Your task to perform on an android device: Clear the shopping cart on costco. Add razer nari to the cart on costco Image 0: 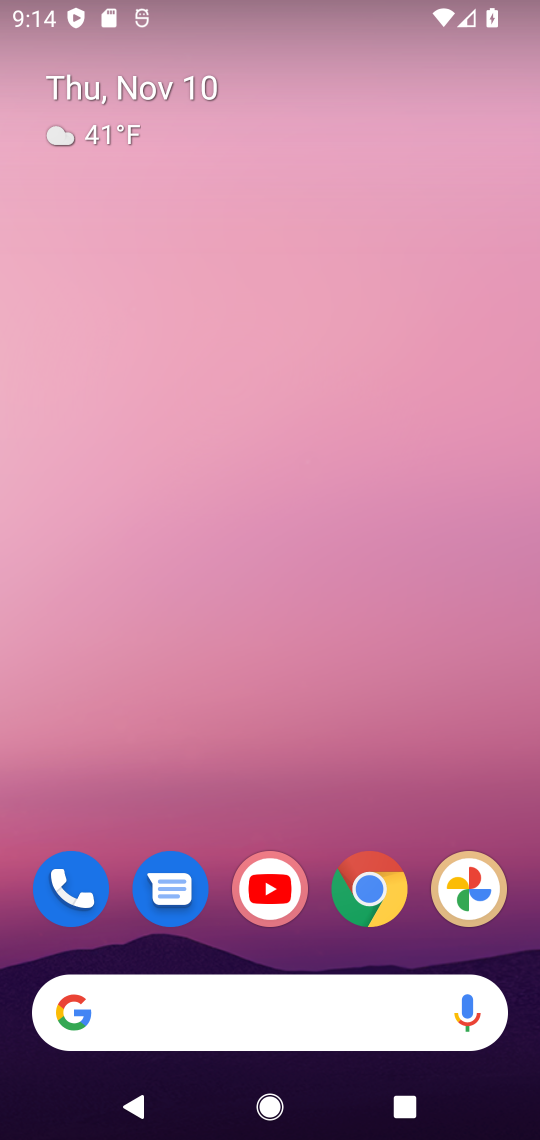
Step 0: click (370, 890)
Your task to perform on an android device: Clear the shopping cart on costco. Add razer nari to the cart on costco Image 1: 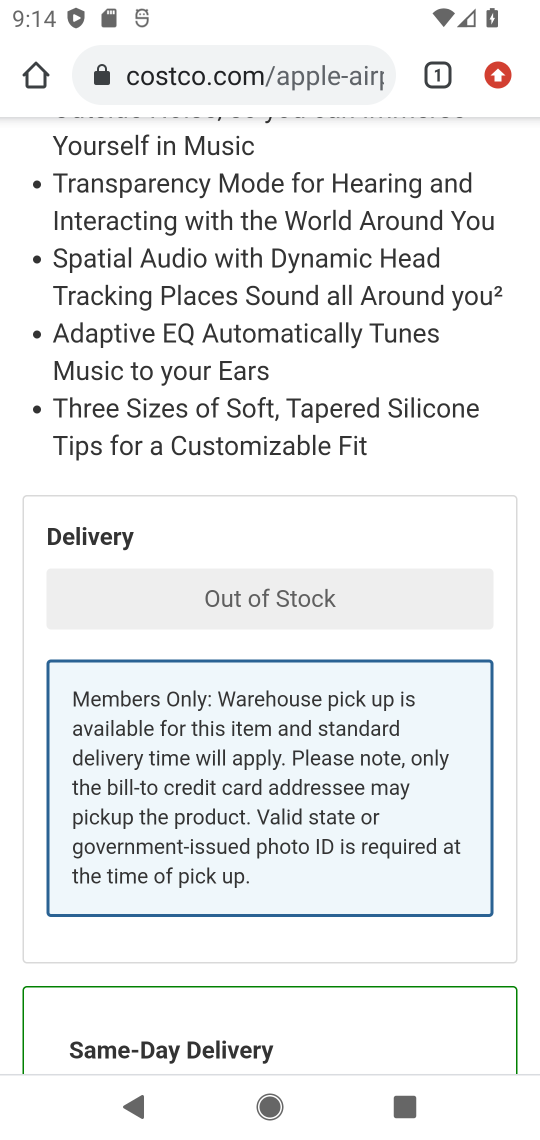
Step 1: click (258, 68)
Your task to perform on an android device: Clear the shopping cart on costco. Add razer nari to the cart on costco Image 2: 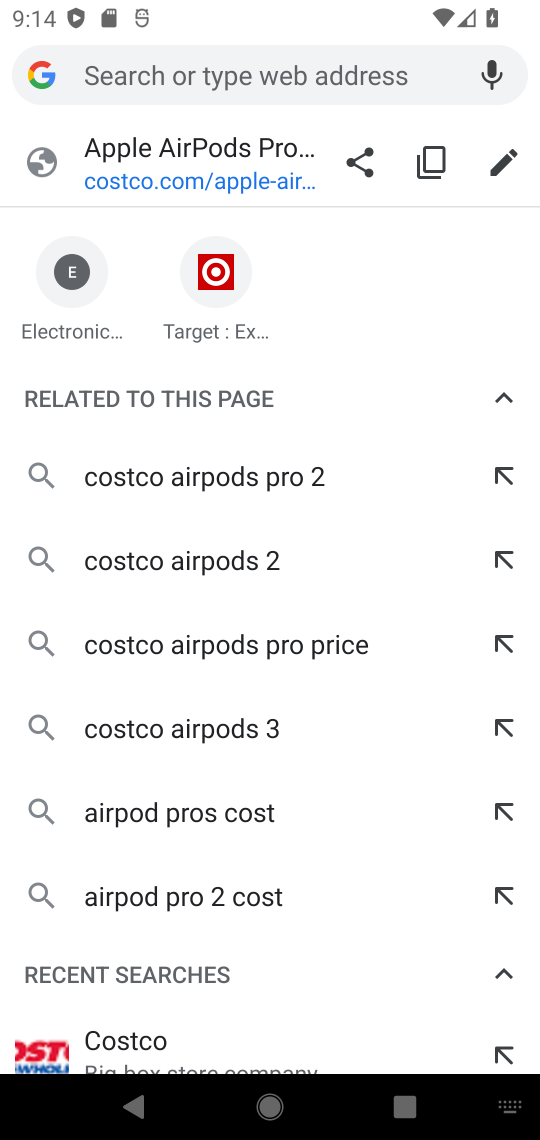
Step 2: click (115, 1047)
Your task to perform on an android device: Clear the shopping cart on costco. Add razer nari to the cart on costco Image 3: 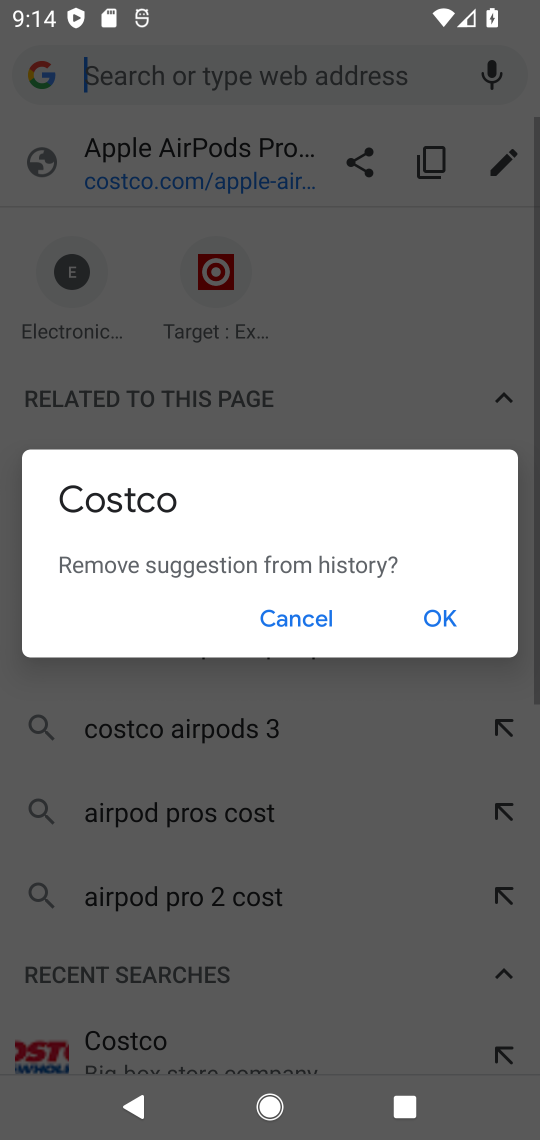
Step 3: click (318, 610)
Your task to perform on an android device: Clear the shopping cart on costco. Add razer nari to the cart on costco Image 4: 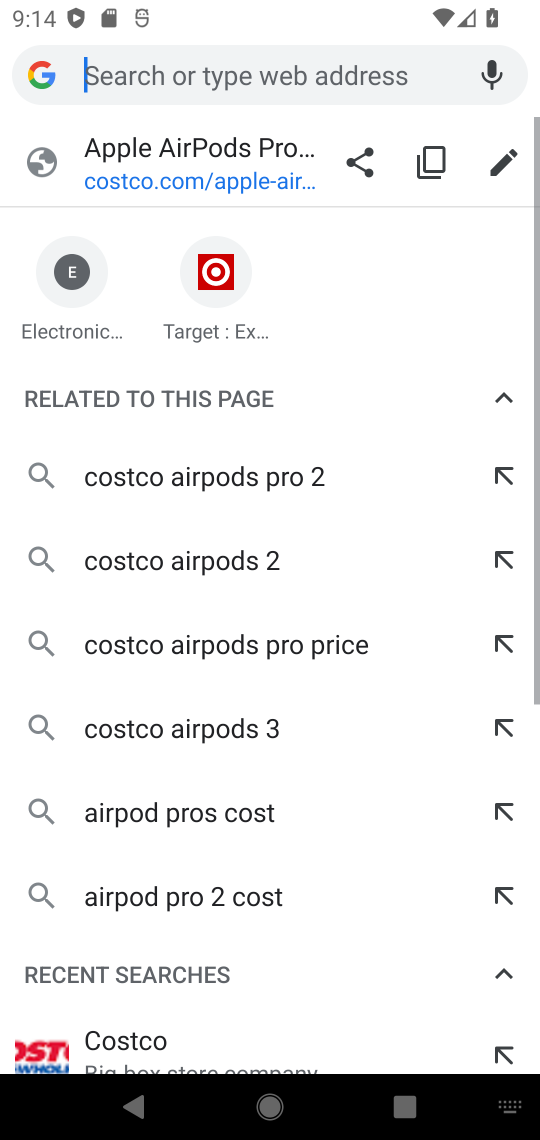
Step 4: drag from (270, 951) to (458, 438)
Your task to perform on an android device: Clear the shopping cart on costco. Add razer nari to the cart on costco Image 5: 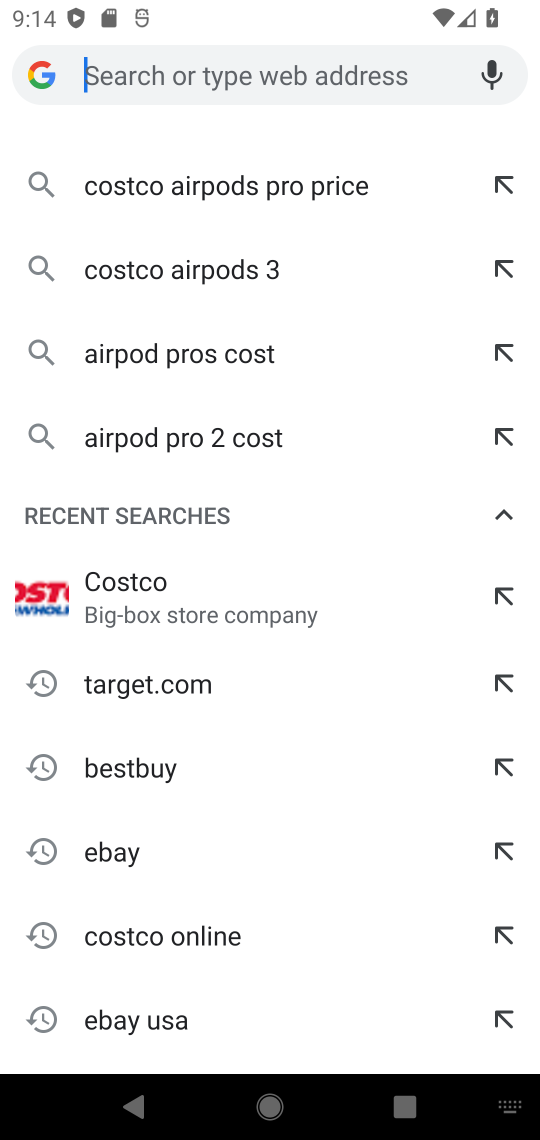
Step 5: click (124, 574)
Your task to perform on an android device: Clear the shopping cart on costco. Add razer nari to the cart on costco Image 6: 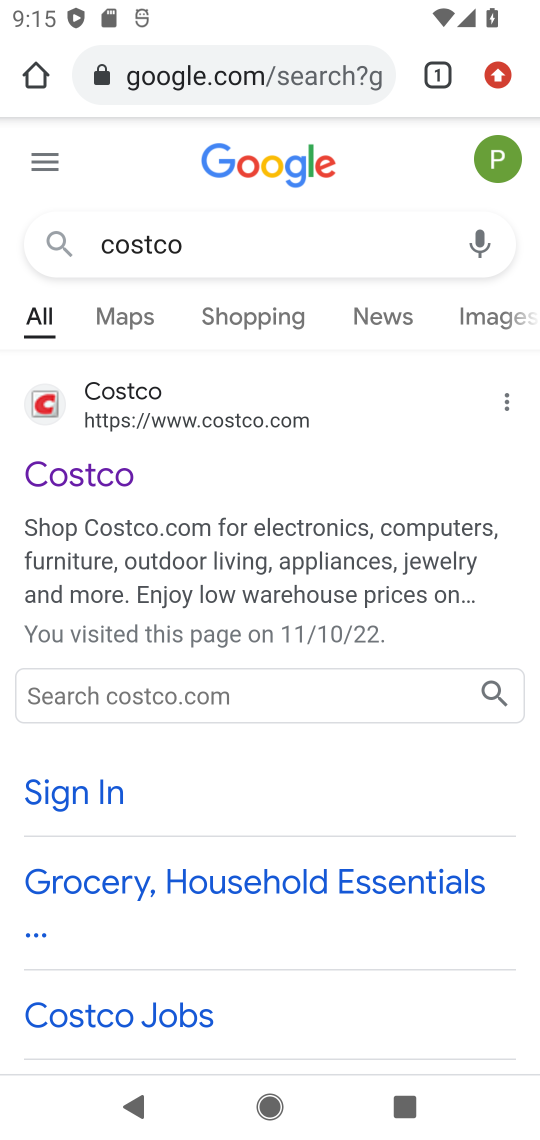
Step 6: click (53, 468)
Your task to perform on an android device: Clear the shopping cart on costco. Add razer nari to the cart on costco Image 7: 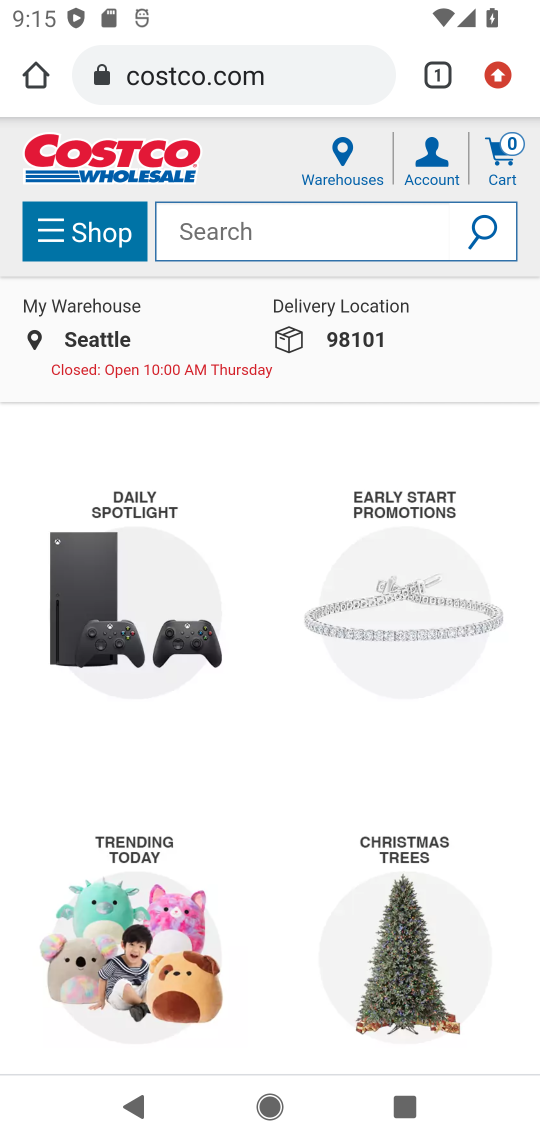
Step 7: click (246, 226)
Your task to perform on an android device: Clear the shopping cart on costco. Add razer nari to the cart on costco Image 8: 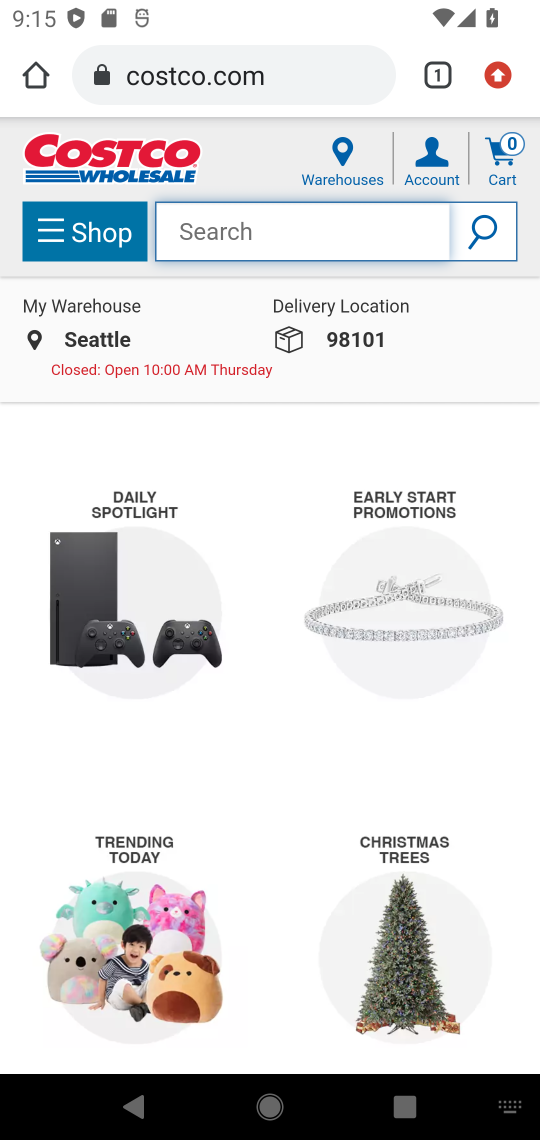
Step 8: type "razer nari "
Your task to perform on an android device: Clear the shopping cart on costco. Add razer nari to the cart on costco Image 9: 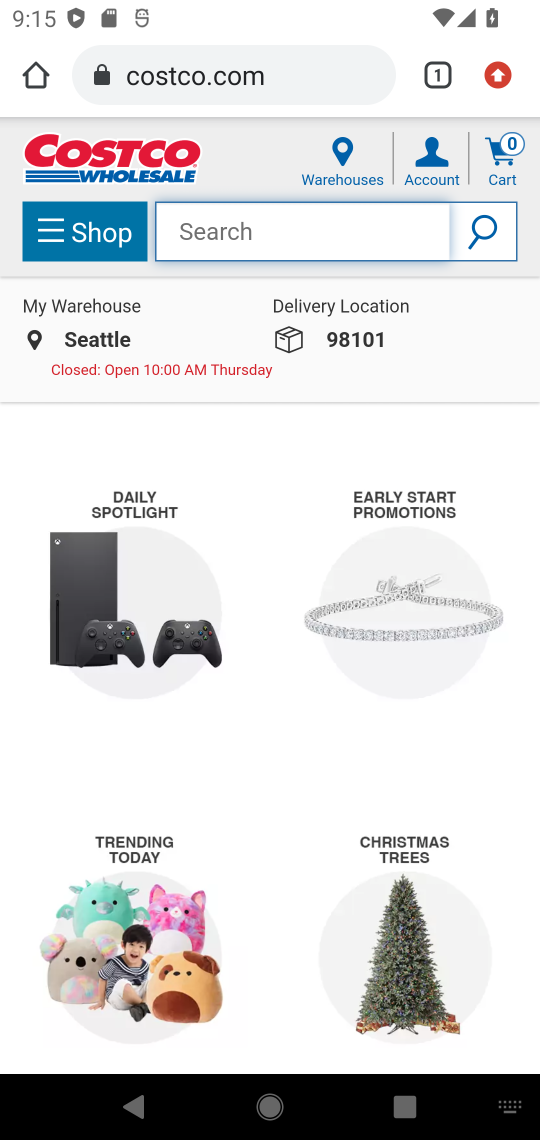
Step 9: press enter
Your task to perform on an android device: Clear the shopping cart on costco. Add razer nari to the cart on costco Image 10: 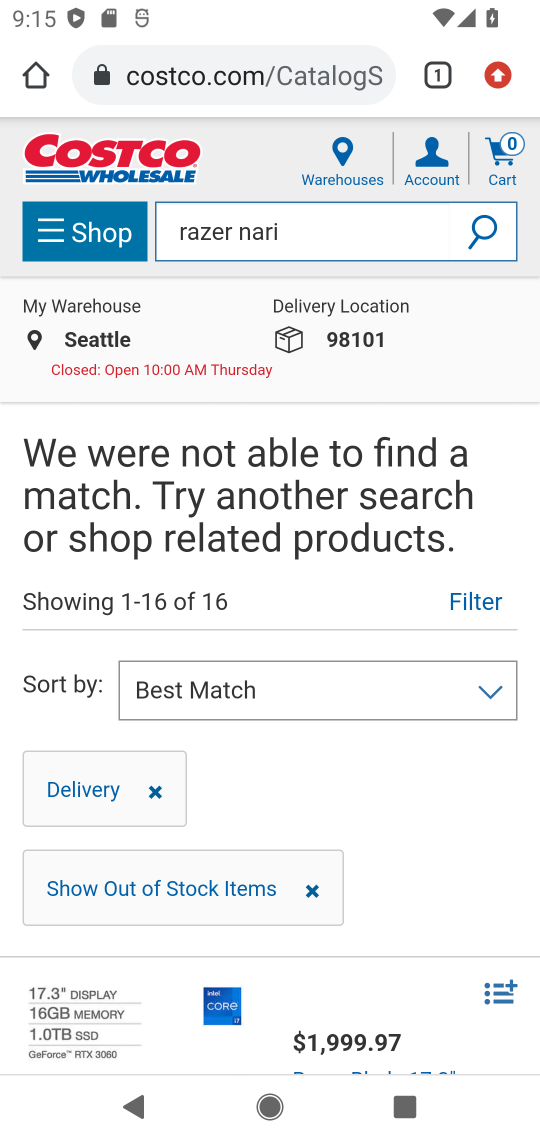
Step 10: task complete